Your task to perform on an android device: Do I have any events today? Image 0: 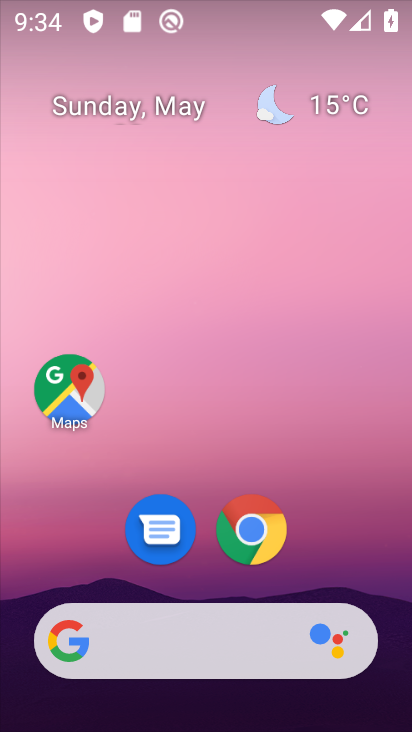
Step 0: drag from (282, 643) to (317, 97)
Your task to perform on an android device: Do I have any events today? Image 1: 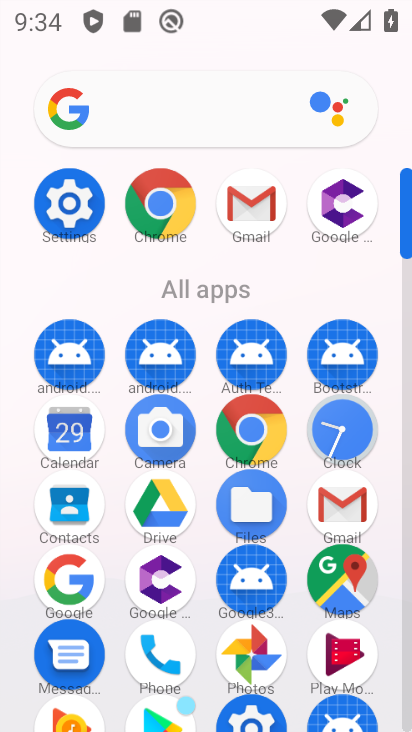
Step 1: click (263, 416)
Your task to perform on an android device: Do I have any events today? Image 2: 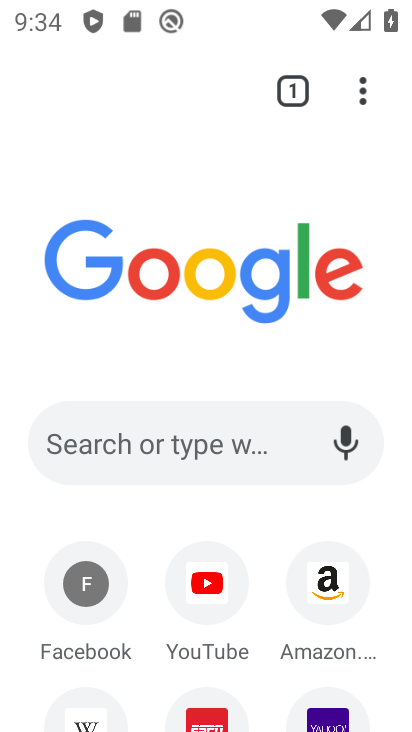
Step 2: press home button
Your task to perform on an android device: Do I have any events today? Image 3: 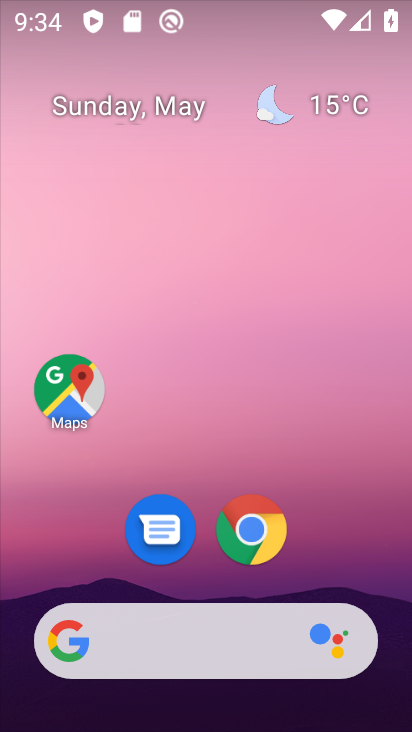
Step 3: drag from (278, 598) to (269, 27)
Your task to perform on an android device: Do I have any events today? Image 4: 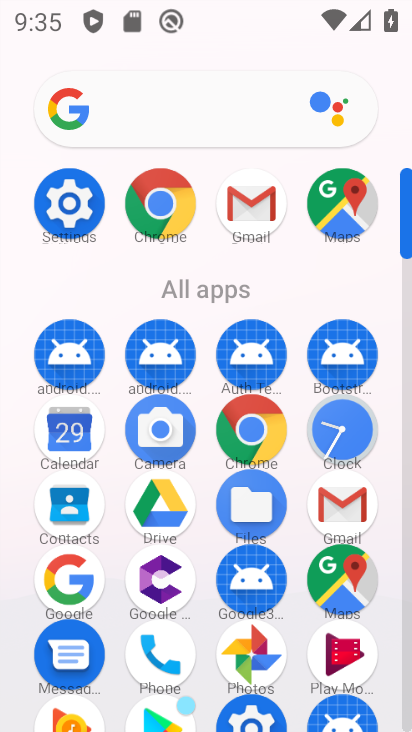
Step 4: click (74, 430)
Your task to perform on an android device: Do I have any events today? Image 5: 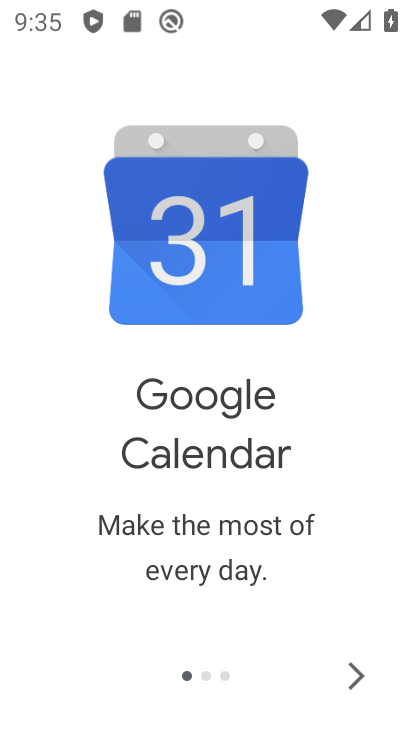
Step 5: click (351, 674)
Your task to perform on an android device: Do I have any events today? Image 6: 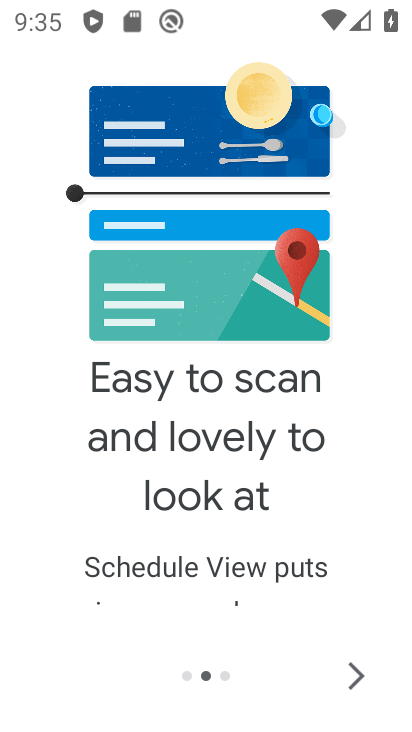
Step 6: click (351, 674)
Your task to perform on an android device: Do I have any events today? Image 7: 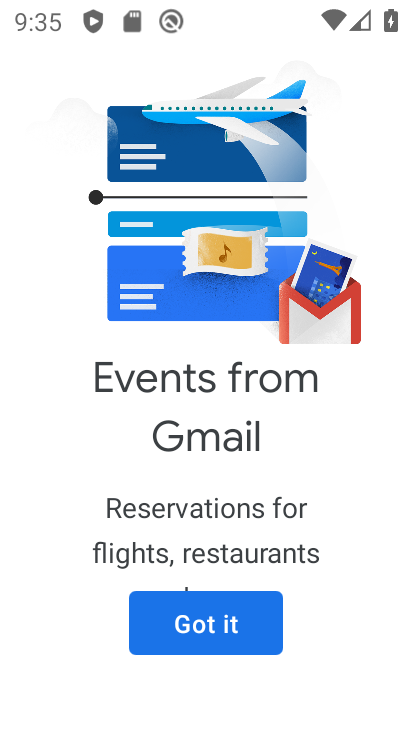
Step 7: click (261, 612)
Your task to perform on an android device: Do I have any events today? Image 8: 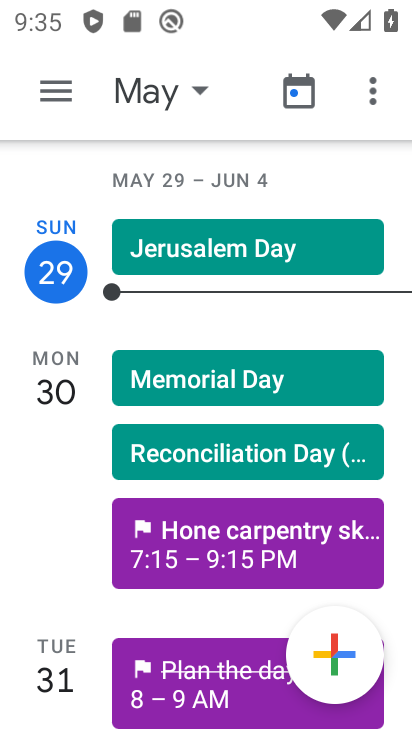
Step 8: click (199, 81)
Your task to perform on an android device: Do I have any events today? Image 9: 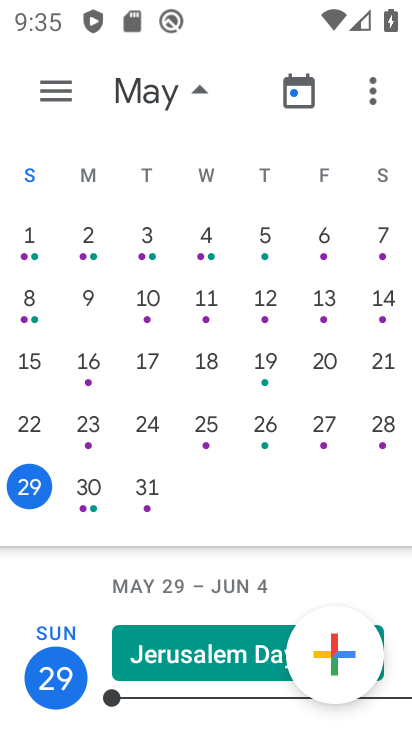
Step 9: click (94, 479)
Your task to perform on an android device: Do I have any events today? Image 10: 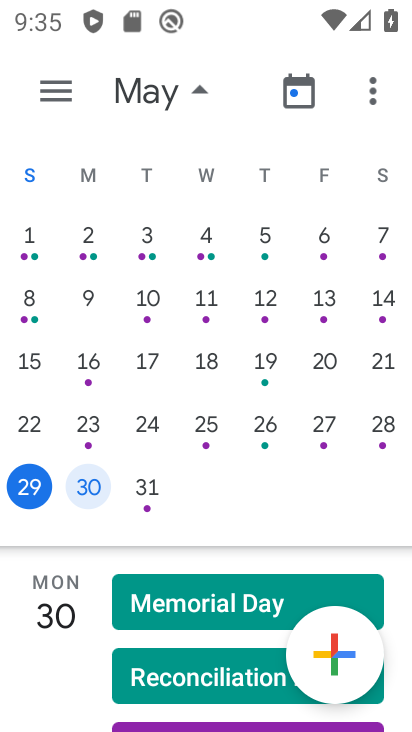
Step 10: click (95, 479)
Your task to perform on an android device: Do I have any events today? Image 11: 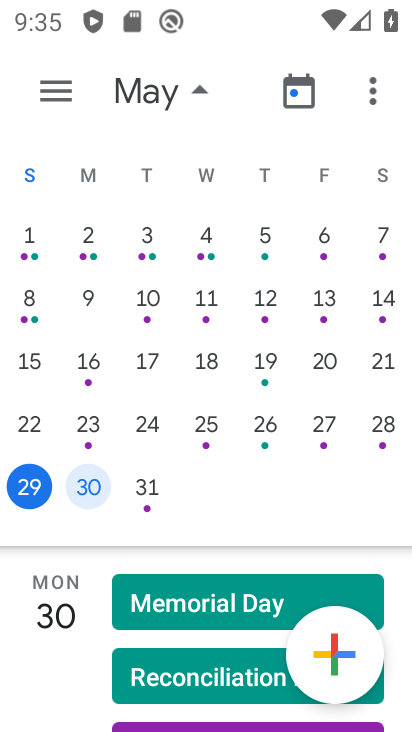
Step 11: task complete